Your task to perform on an android device: toggle notifications settings in the gmail app Image 0: 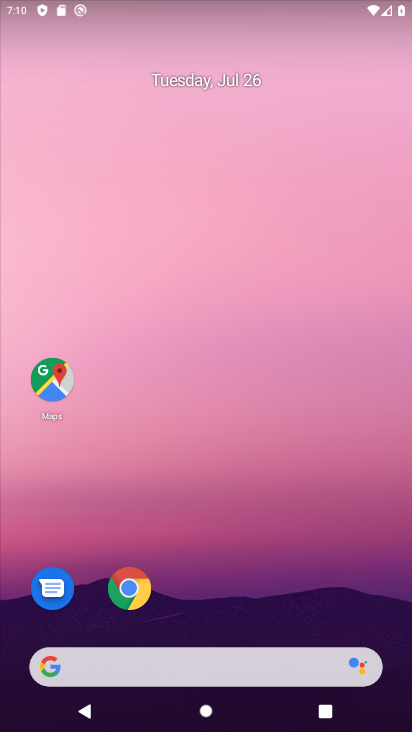
Step 0: drag from (262, 579) to (273, 117)
Your task to perform on an android device: toggle notifications settings in the gmail app Image 1: 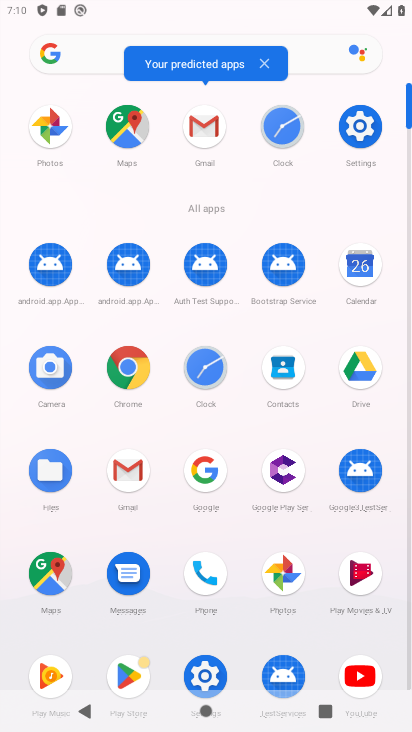
Step 1: click (126, 476)
Your task to perform on an android device: toggle notifications settings in the gmail app Image 2: 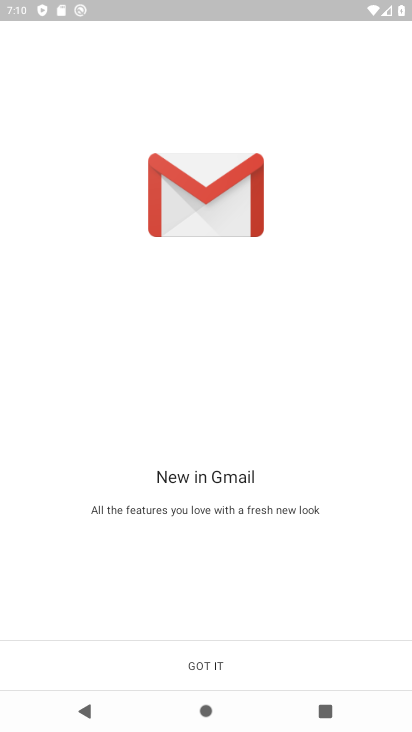
Step 2: click (208, 659)
Your task to perform on an android device: toggle notifications settings in the gmail app Image 3: 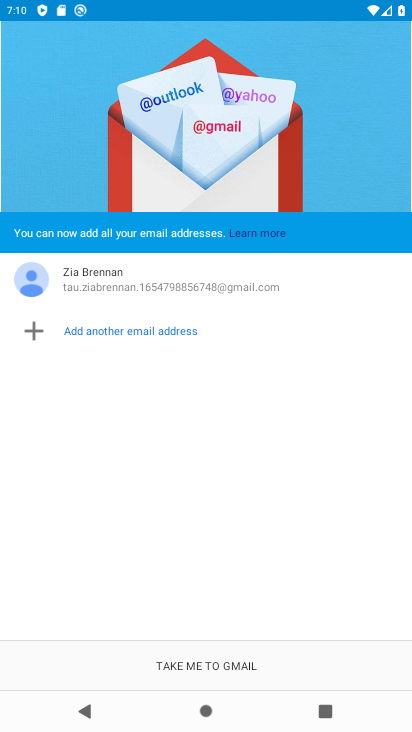
Step 3: click (198, 659)
Your task to perform on an android device: toggle notifications settings in the gmail app Image 4: 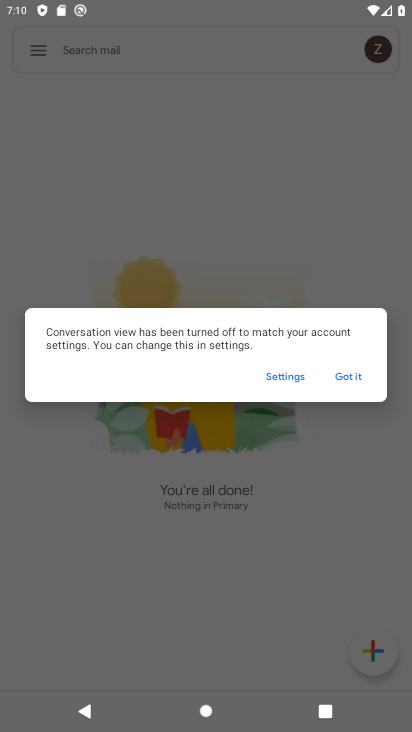
Step 4: click (338, 369)
Your task to perform on an android device: toggle notifications settings in the gmail app Image 5: 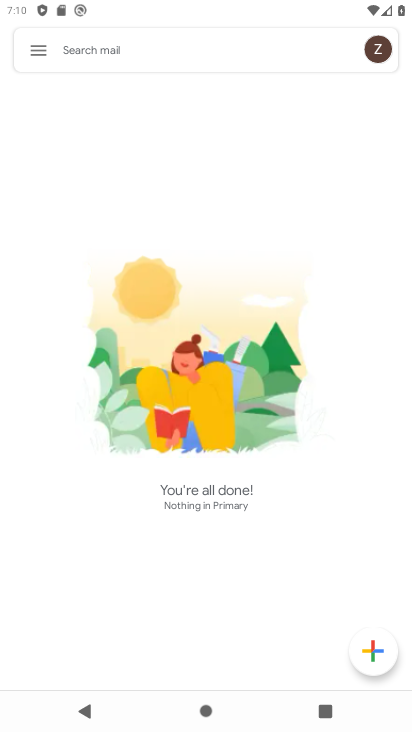
Step 5: task complete